Your task to perform on an android device: Search for the new Apple Watch on Best Buy Image 0: 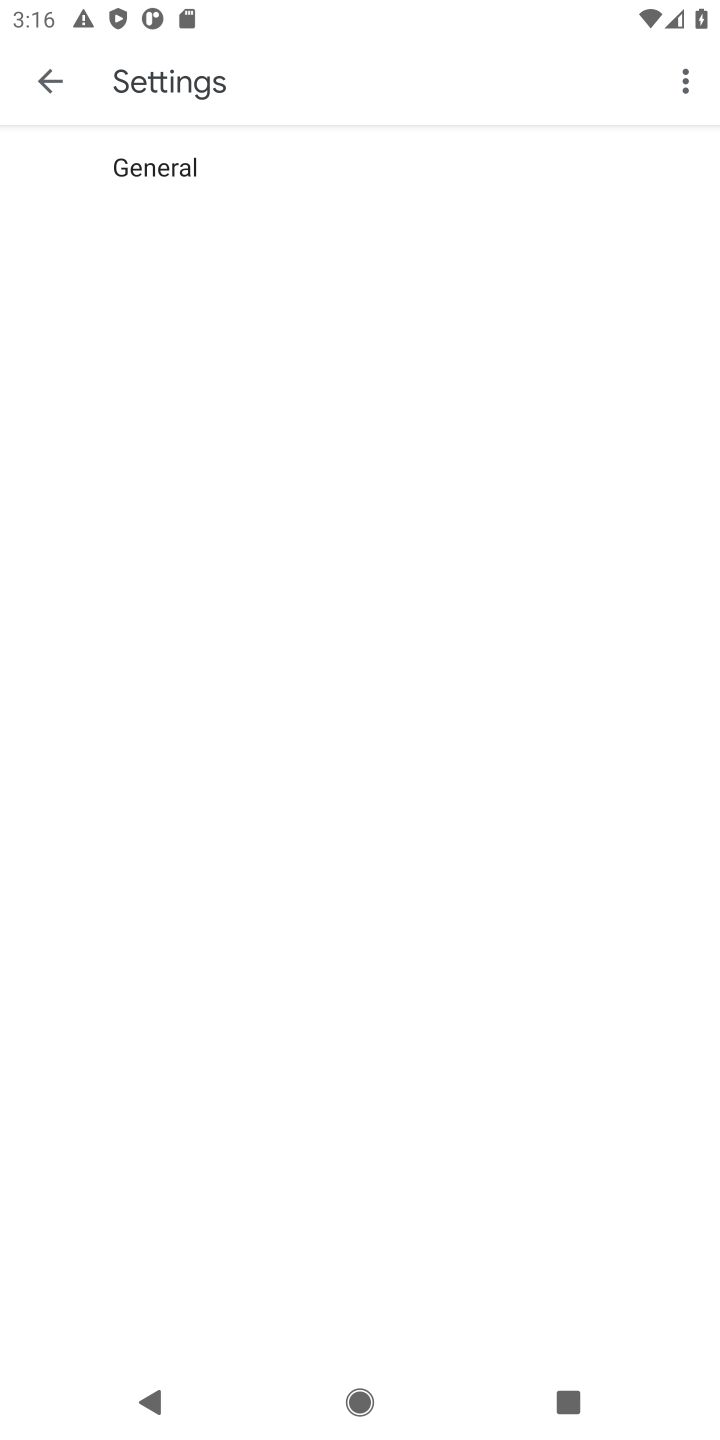
Step 0: press home button
Your task to perform on an android device: Search for the new Apple Watch on Best Buy Image 1: 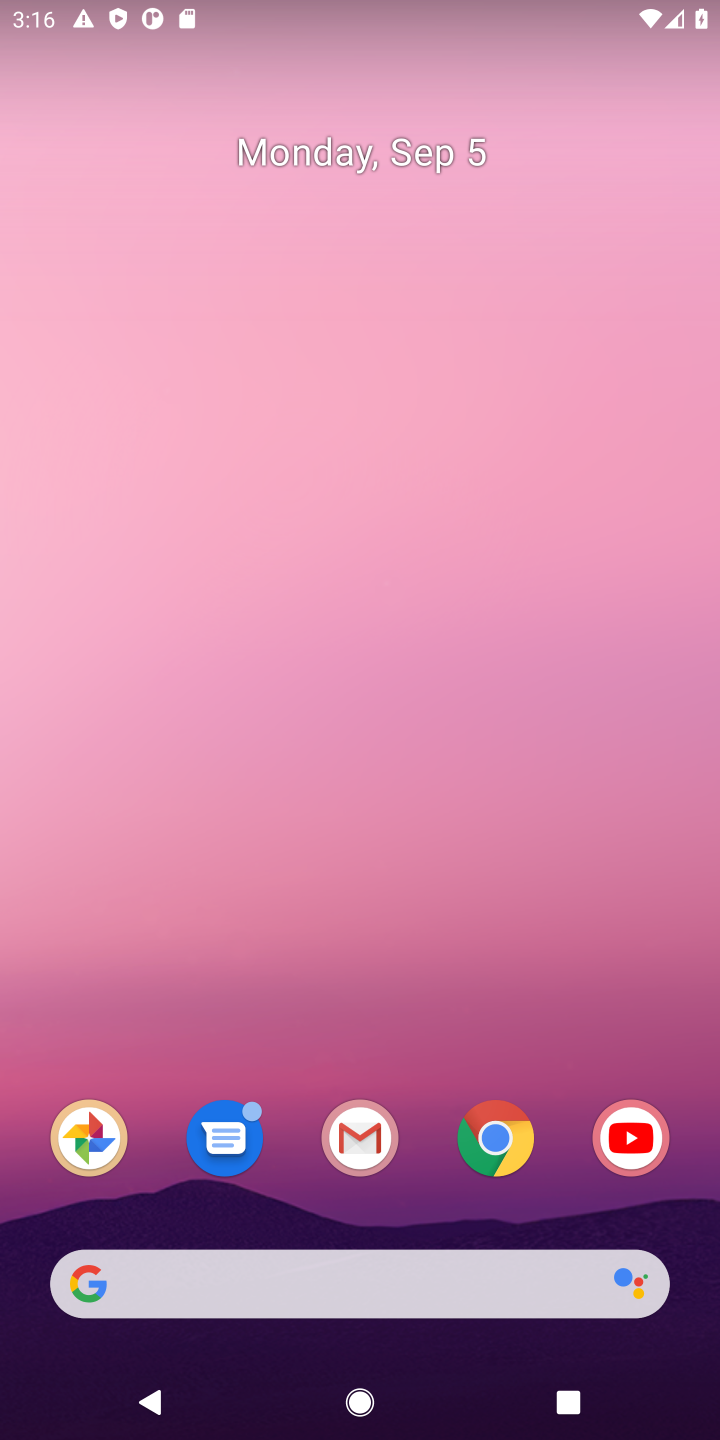
Step 1: click (497, 1140)
Your task to perform on an android device: Search for the new Apple Watch on Best Buy Image 2: 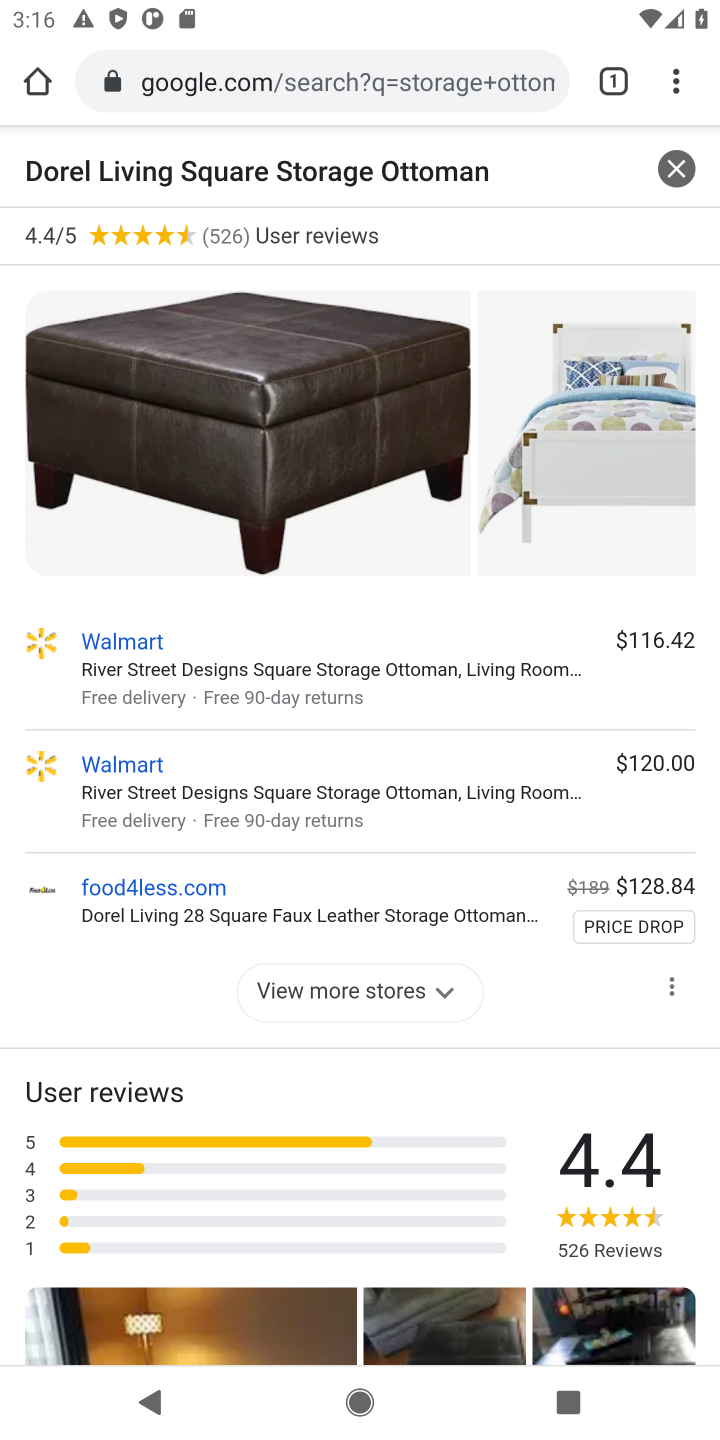
Step 2: click (426, 84)
Your task to perform on an android device: Search for the new Apple Watch on Best Buy Image 3: 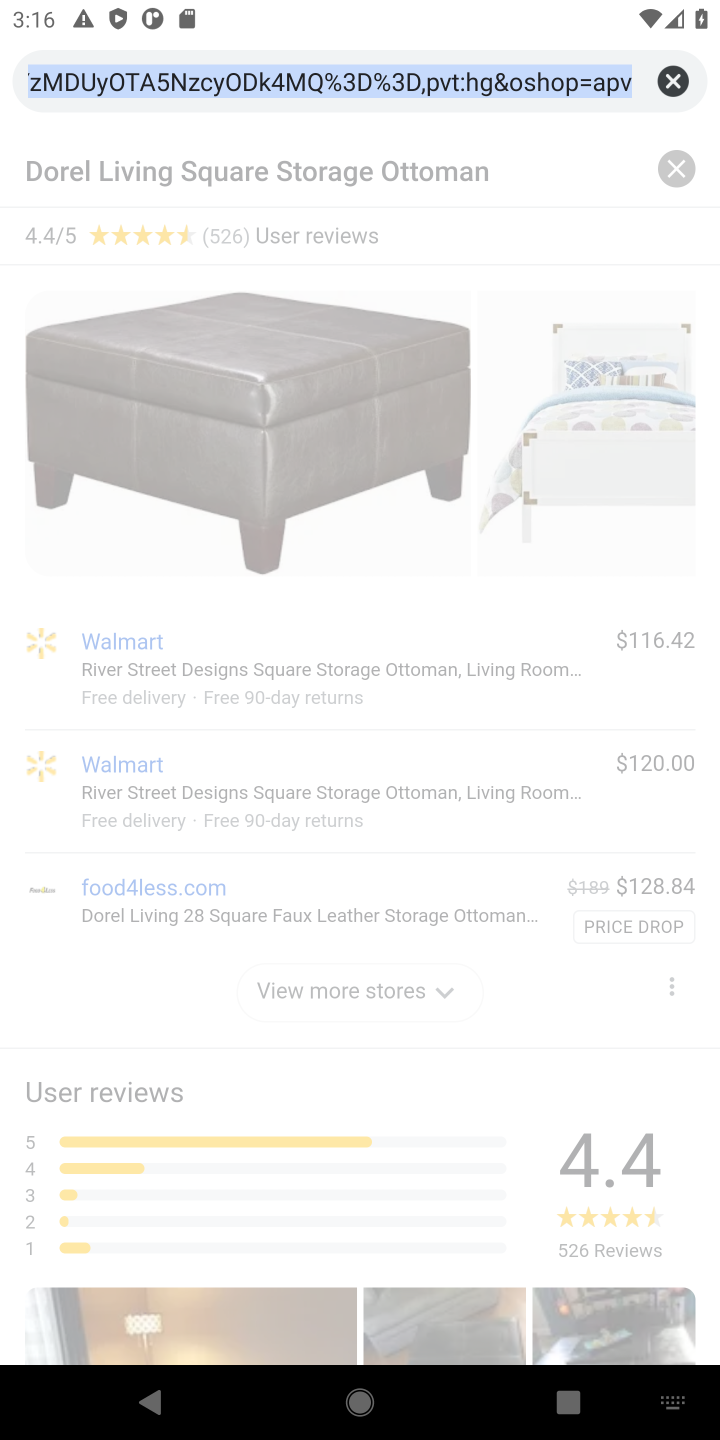
Step 3: type "Best Buy"
Your task to perform on an android device: Search for the new Apple Watch on Best Buy Image 4: 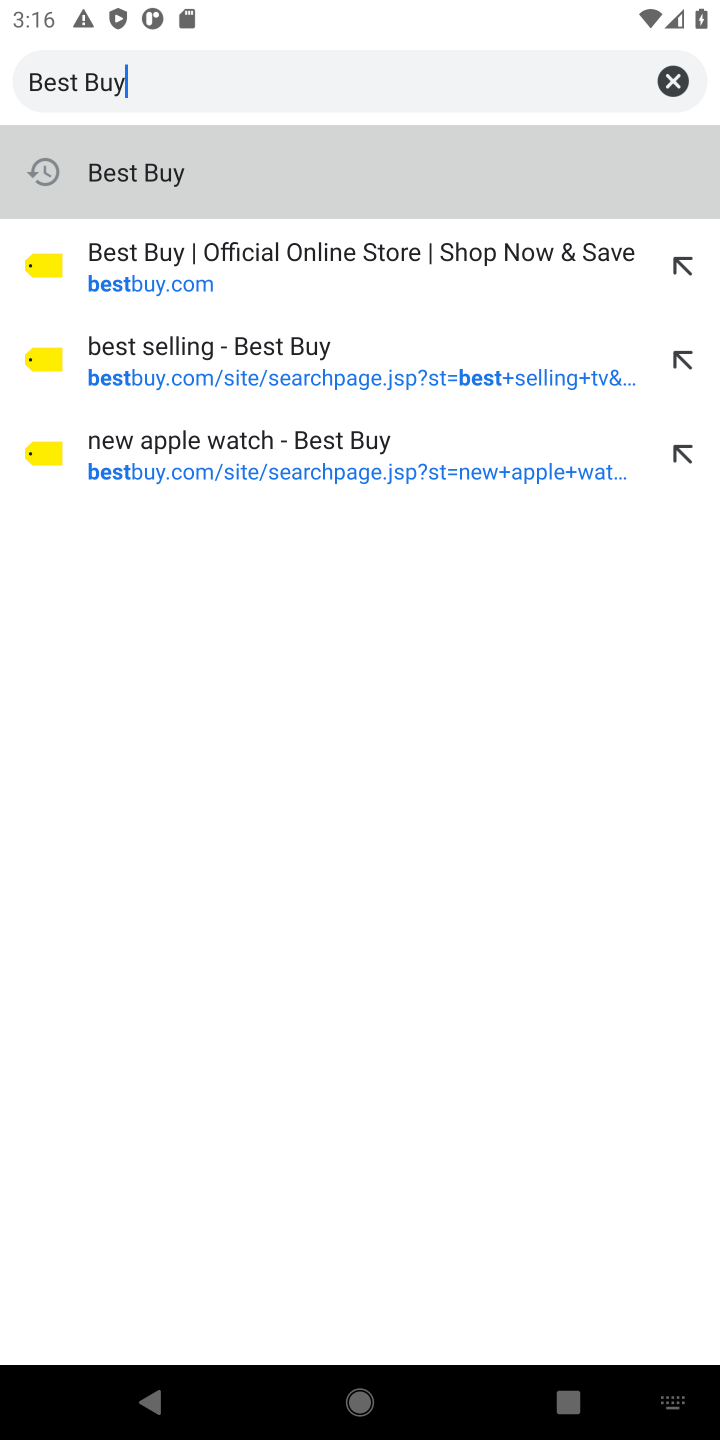
Step 4: click (352, 180)
Your task to perform on an android device: Search for the new Apple Watch on Best Buy Image 5: 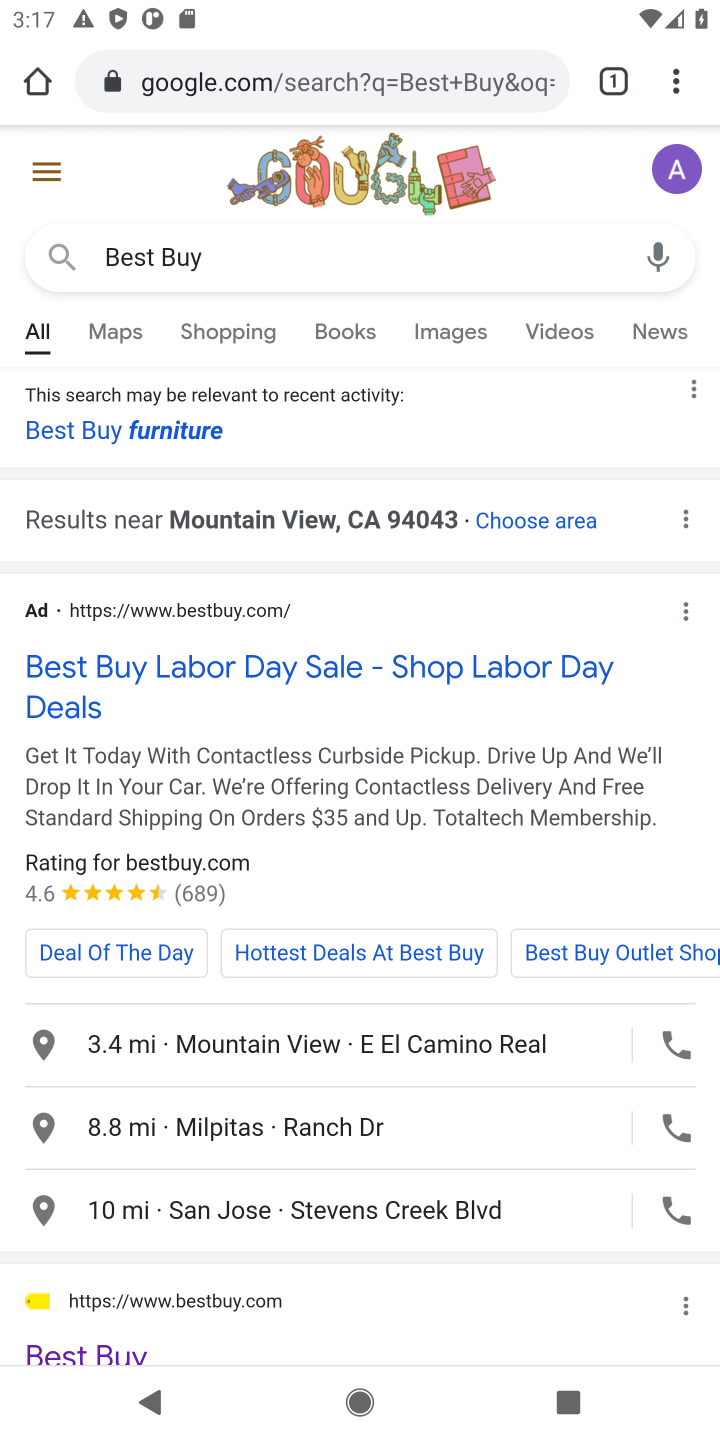
Step 5: click (171, 1361)
Your task to perform on an android device: Search for the new Apple Watch on Best Buy Image 6: 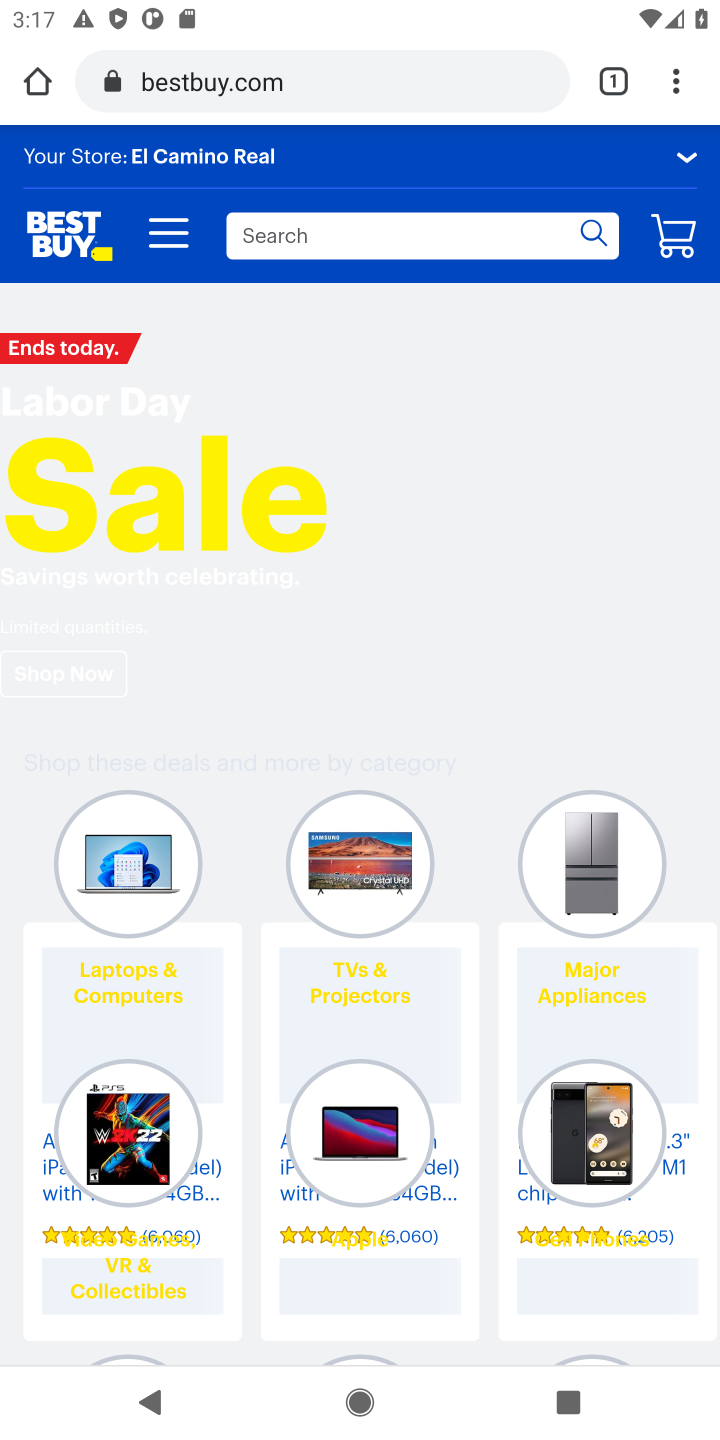
Step 6: click (382, 227)
Your task to perform on an android device: Search for the new Apple Watch on Best Buy Image 7: 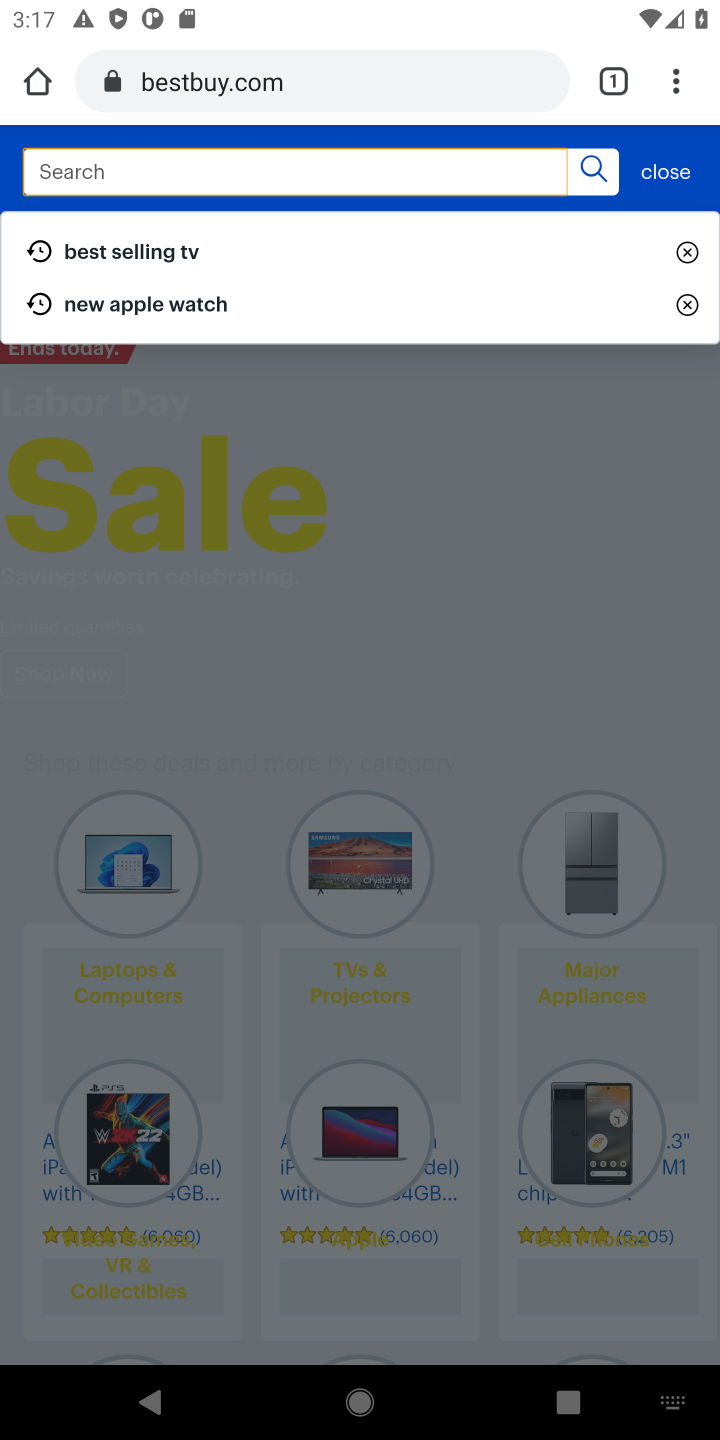
Step 7: type "New Apple Watch"
Your task to perform on an android device: Search for the new Apple Watch on Best Buy Image 8: 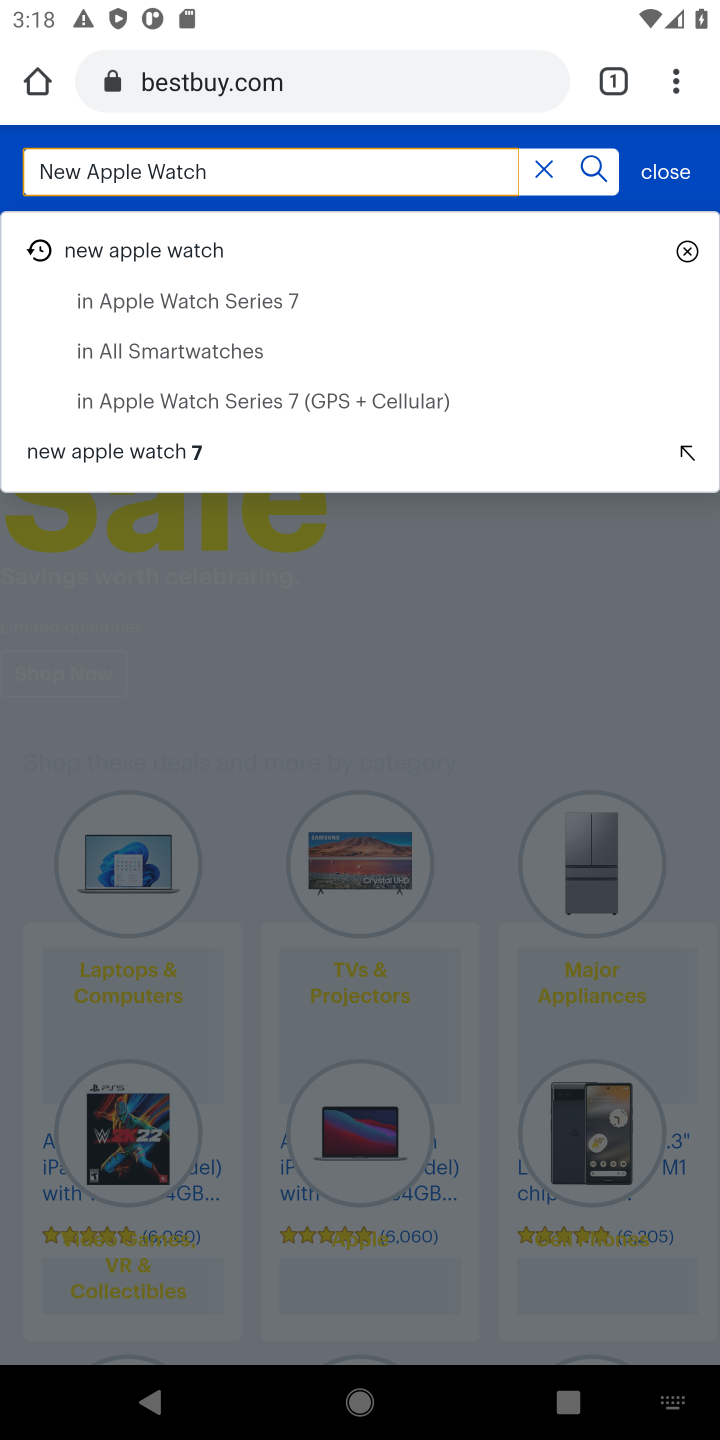
Step 8: click (197, 260)
Your task to perform on an android device: Search for the new Apple Watch on Best Buy Image 9: 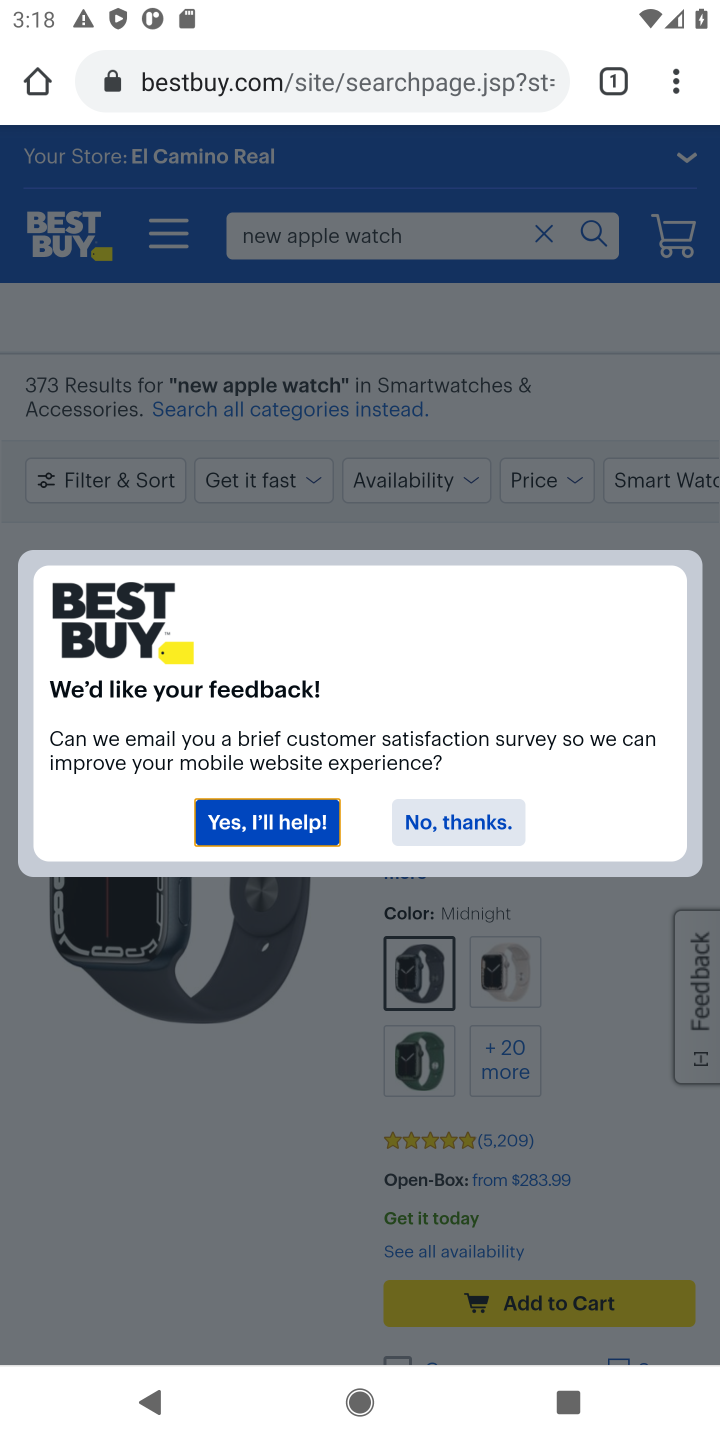
Step 9: click (440, 816)
Your task to perform on an android device: Search for the new Apple Watch on Best Buy Image 10: 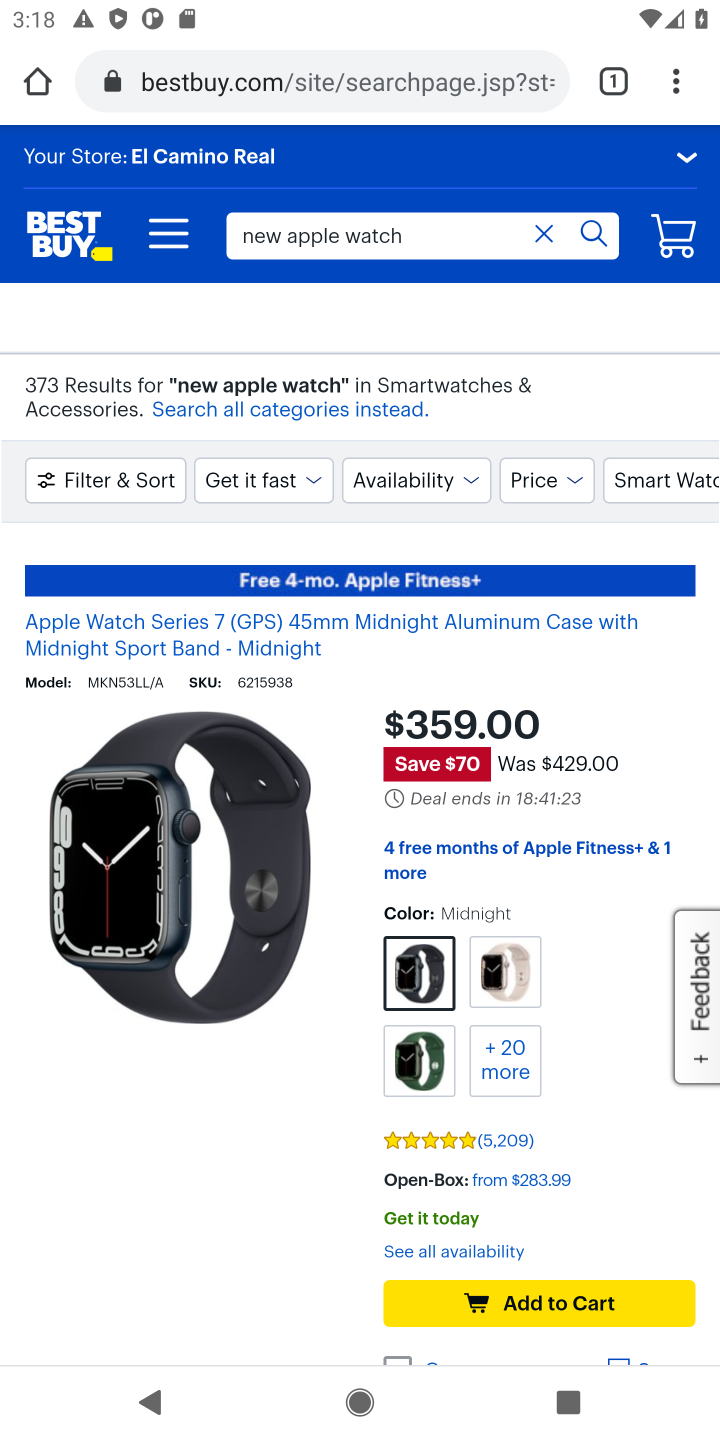
Step 10: task complete